Your task to perform on an android device: Go to location settings Image 0: 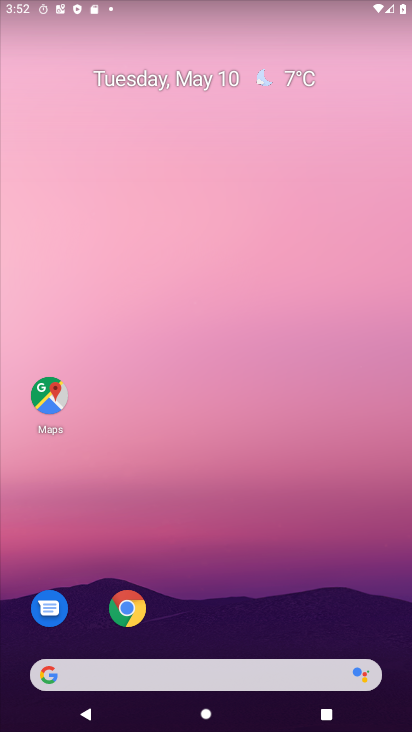
Step 0: drag from (340, 623) to (306, 17)
Your task to perform on an android device: Go to location settings Image 1: 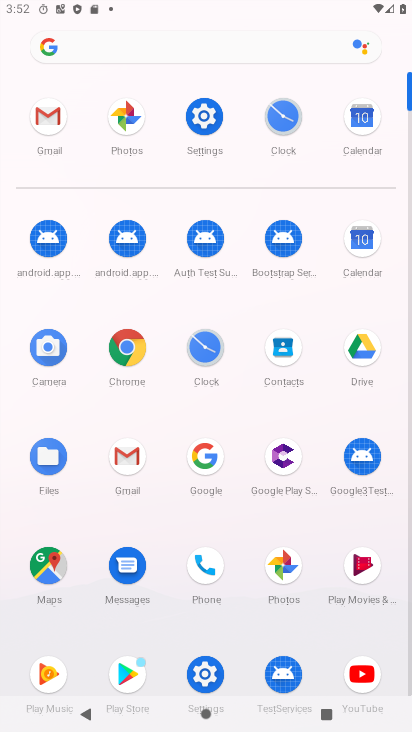
Step 1: click (198, 120)
Your task to perform on an android device: Go to location settings Image 2: 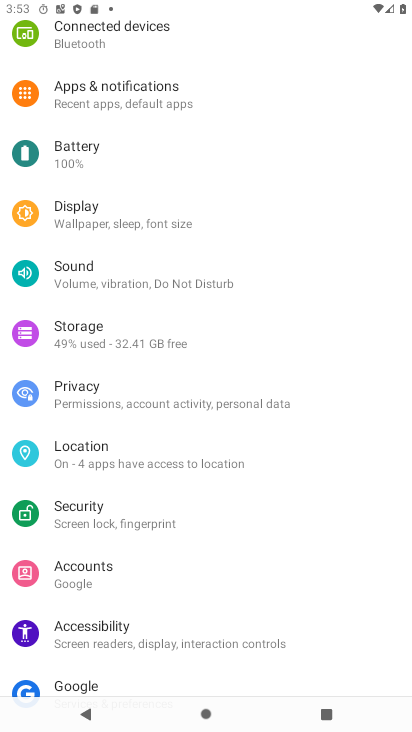
Step 2: click (77, 476)
Your task to perform on an android device: Go to location settings Image 3: 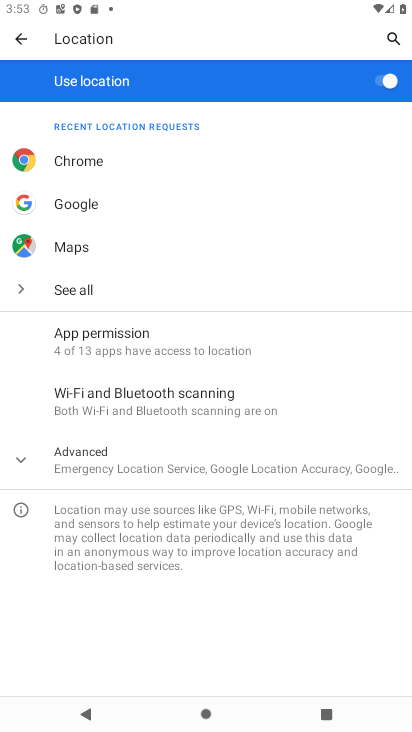
Step 3: task complete